Your task to perform on an android device: check the backup settings in the google photos Image 0: 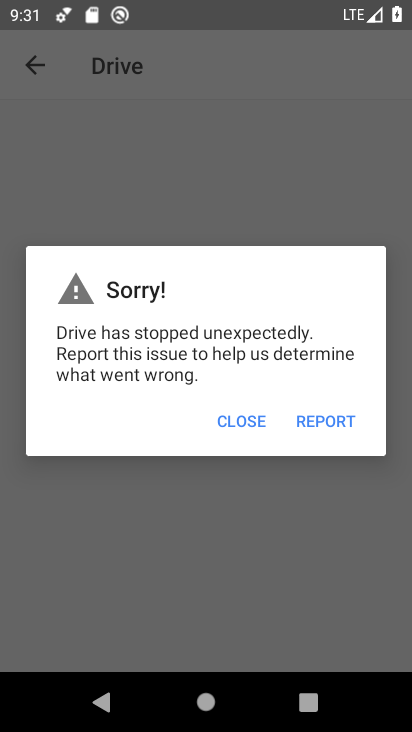
Step 0: drag from (358, 520) to (367, 120)
Your task to perform on an android device: check the backup settings in the google photos Image 1: 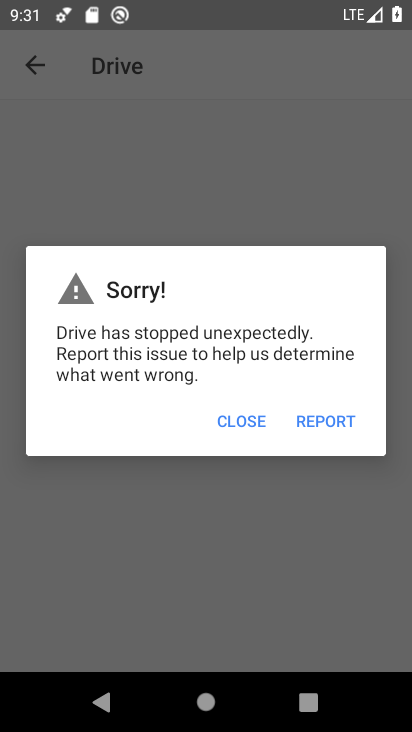
Step 1: press home button
Your task to perform on an android device: check the backup settings in the google photos Image 2: 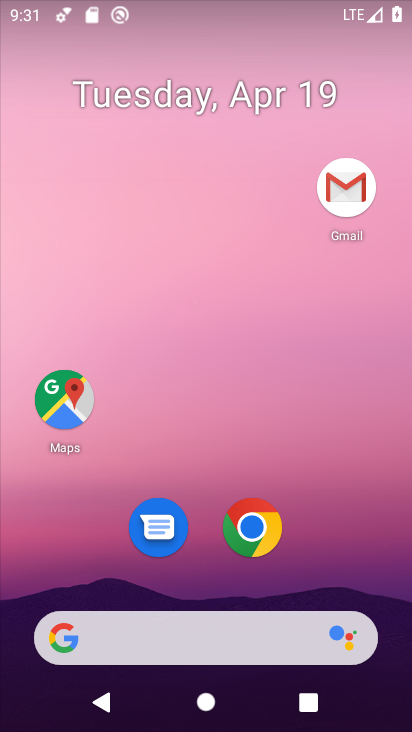
Step 2: drag from (339, 477) to (319, 49)
Your task to perform on an android device: check the backup settings in the google photos Image 3: 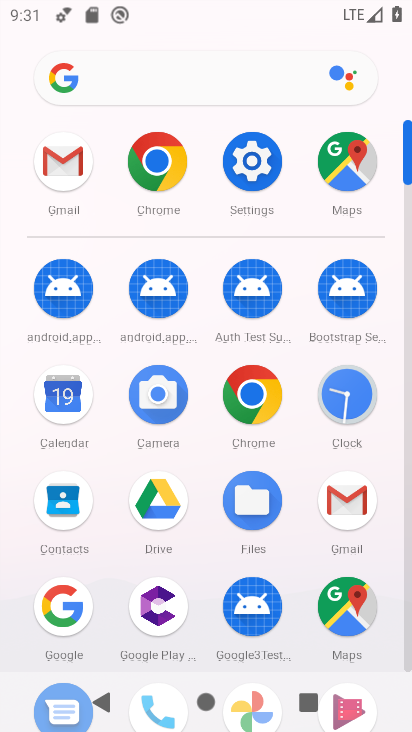
Step 3: drag from (304, 564) to (308, 233)
Your task to perform on an android device: check the backup settings in the google photos Image 4: 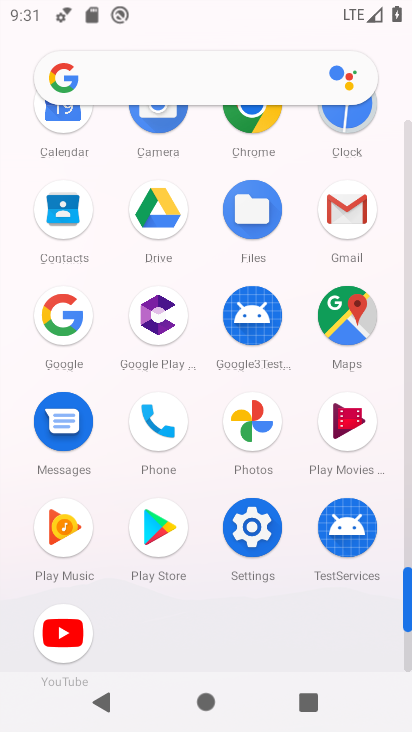
Step 4: click (261, 415)
Your task to perform on an android device: check the backup settings in the google photos Image 5: 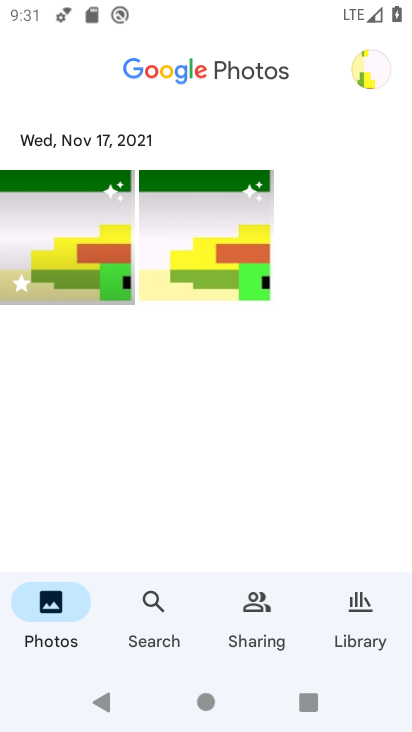
Step 5: click (363, 67)
Your task to perform on an android device: check the backup settings in the google photos Image 6: 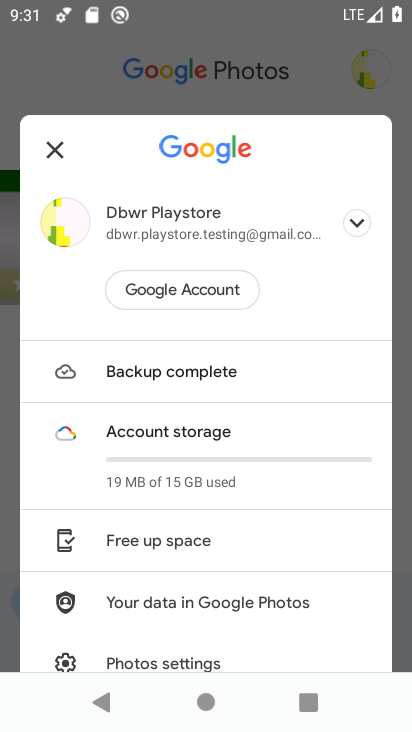
Step 6: drag from (335, 621) to (335, 310)
Your task to perform on an android device: check the backup settings in the google photos Image 7: 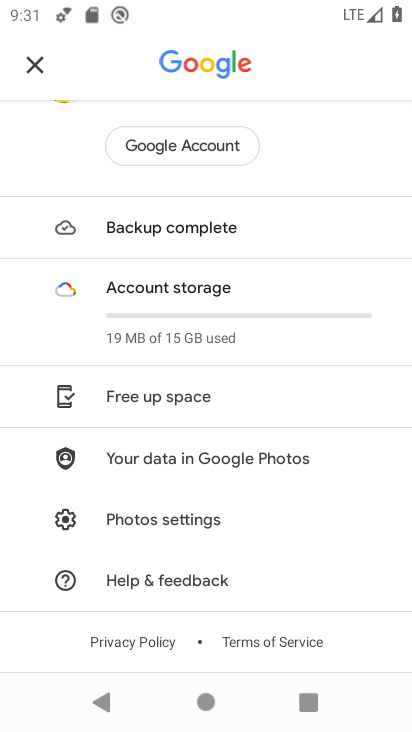
Step 7: click (179, 515)
Your task to perform on an android device: check the backup settings in the google photos Image 8: 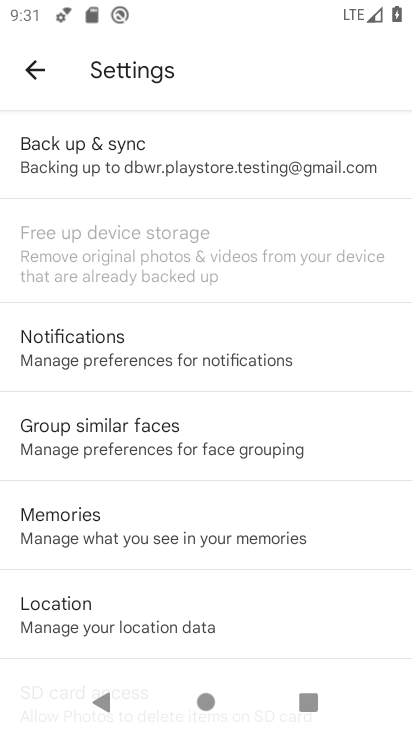
Step 8: click (149, 161)
Your task to perform on an android device: check the backup settings in the google photos Image 9: 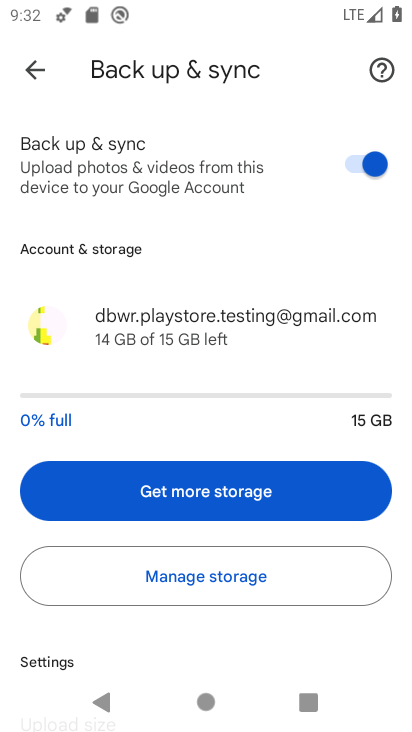
Step 9: task complete